Your task to perform on an android device: turn off notifications settings in the gmail app Image 0: 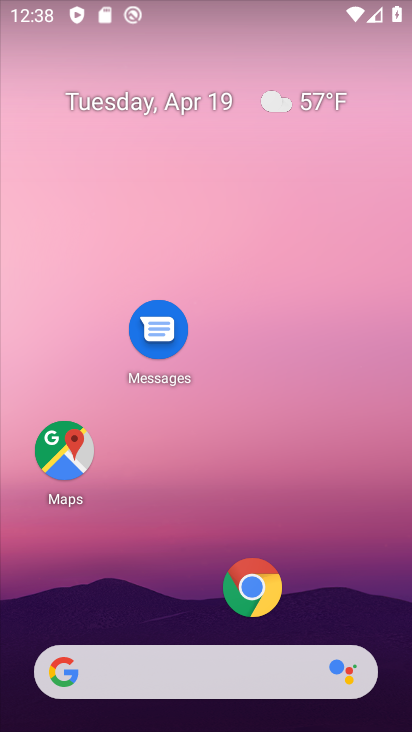
Step 0: drag from (173, 598) to (187, 186)
Your task to perform on an android device: turn off notifications settings in the gmail app Image 1: 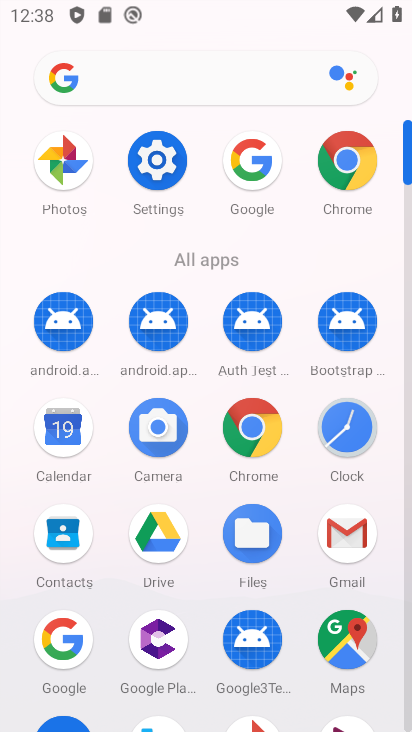
Step 1: click (341, 534)
Your task to perform on an android device: turn off notifications settings in the gmail app Image 2: 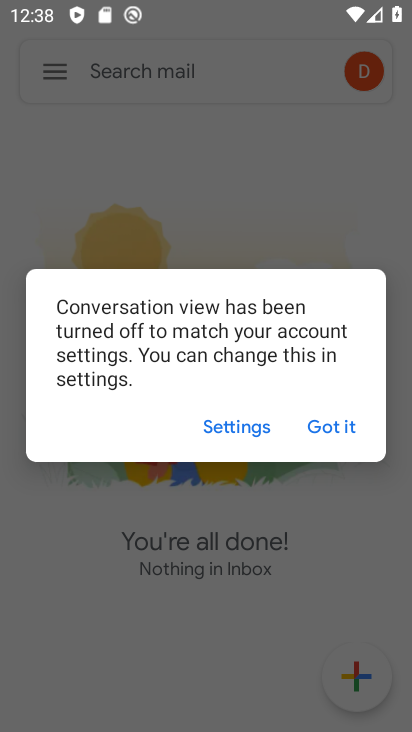
Step 2: click (330, 427)
Your task to perform on an android device: turn off notifications settings in the gmail app Image 3: 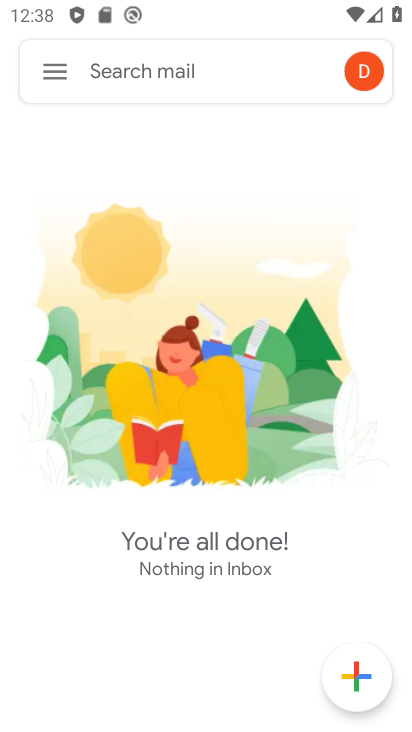
Step 3: click (56, 71)
Your task to perform on an android device: turn off notifications settings in the gmail app Image 4: 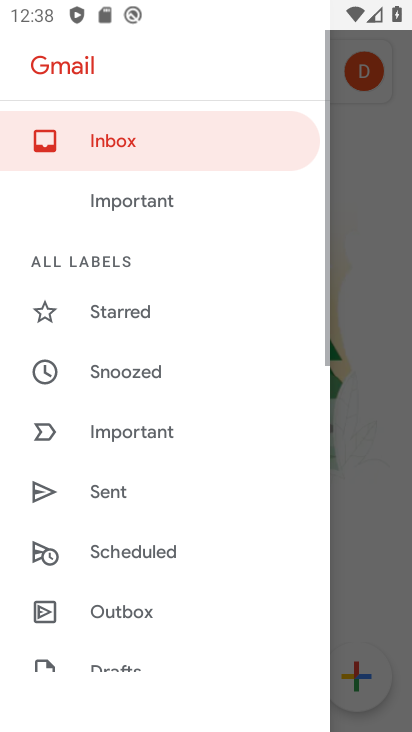
Step 4: drag from (174, 599) to (173, 257)
Your task to perform on an android device: turn off notifications settings in the gmail app Image 5: 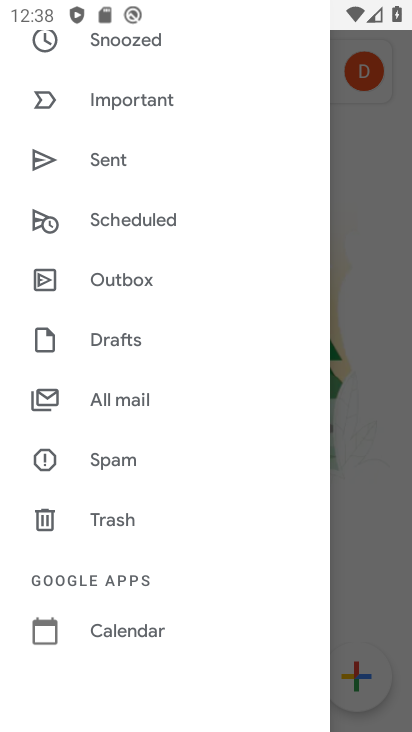
Step 5: drag from (194, 483) to (195, 160)
Your task to perform on an android device: turn off notifications settings in the gmail app Image 6: 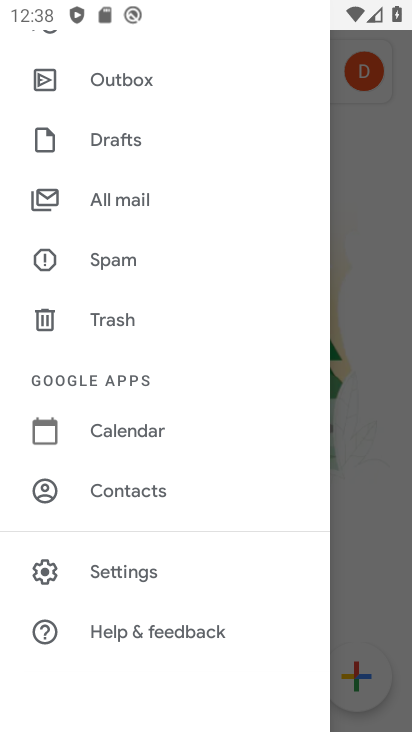
Step 6: click (130, 588)
Your task to perform on an android device: turn off notifications settings in the gmail app Image 7: 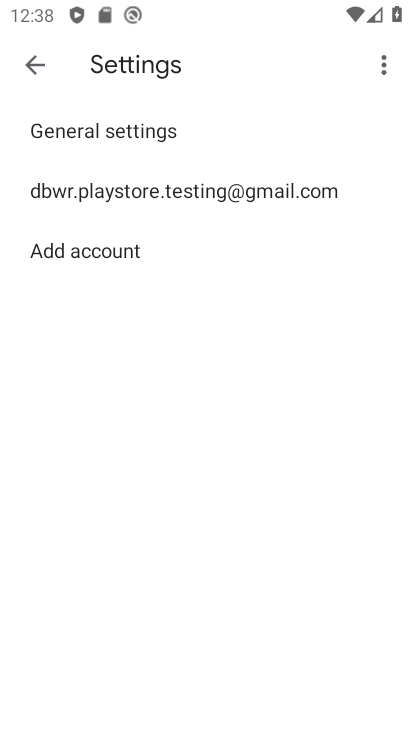
Step 7: click (126, 185)
Your task to perform on an android device: turn off notifications settings in the gmail app Image 8: 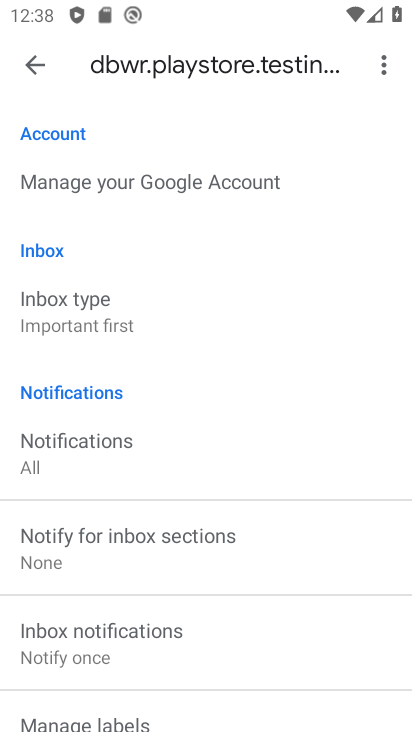
Step 8: click (110, 458)
Your task to perform on an android device: turn off notifications settings in the gmail app Image 9: 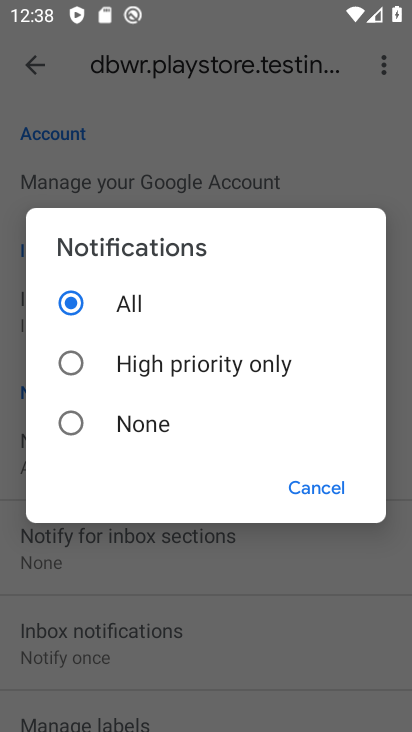
Step 9: click (80, 420)
Your task to perform on an android device: turn off notifications settings in the gmail app Image 10: 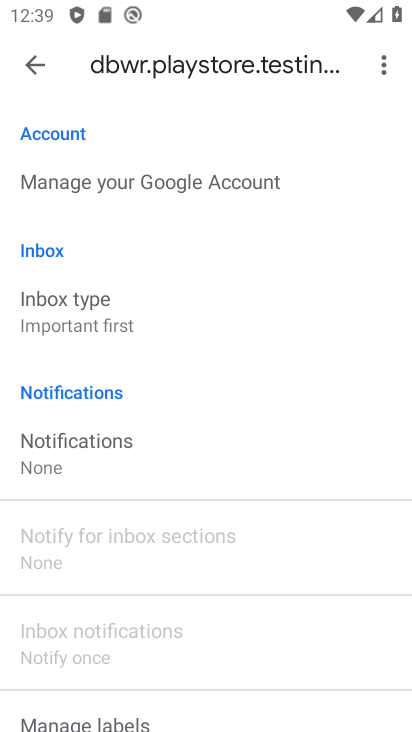
Step 10: task complete